Your task to perform on an android device: clear all cookies in the chrome app Image 0: 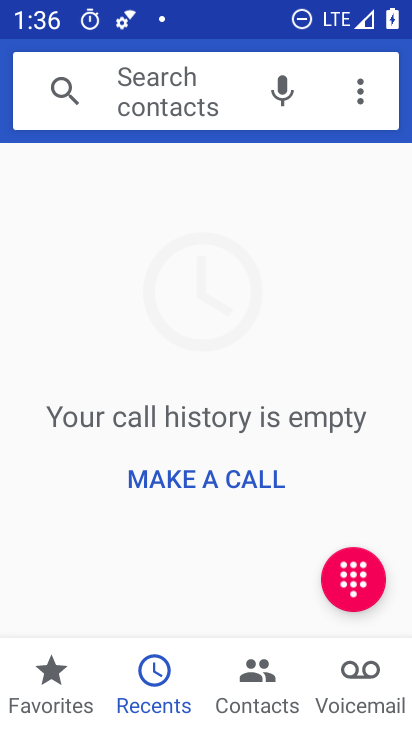
Step 0: press home button
Your task to perform on an android device: clear all cookies in the chrome app Image 1: 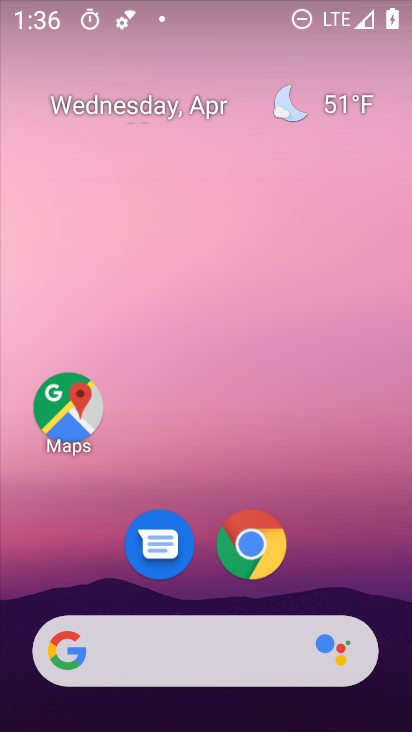
Step 1: drag from (335, 553) to (322, 87)
Your task to perform on an android device: clear all cookies in the chrome app Image 2: 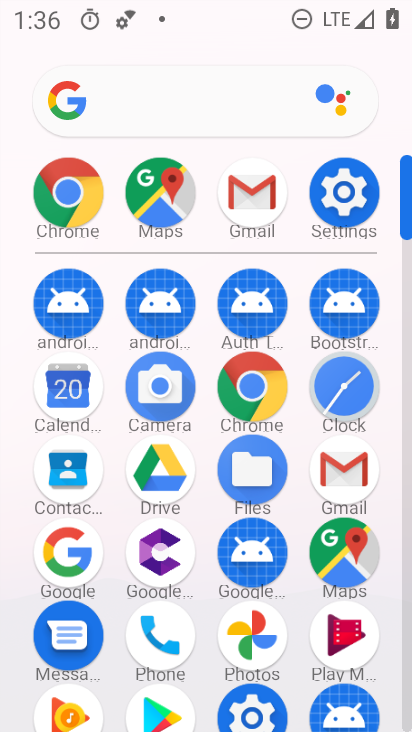
Step 2: click (263, 386)
Your task to perform on an android device: clear all cookies in the chrome app Image 3: 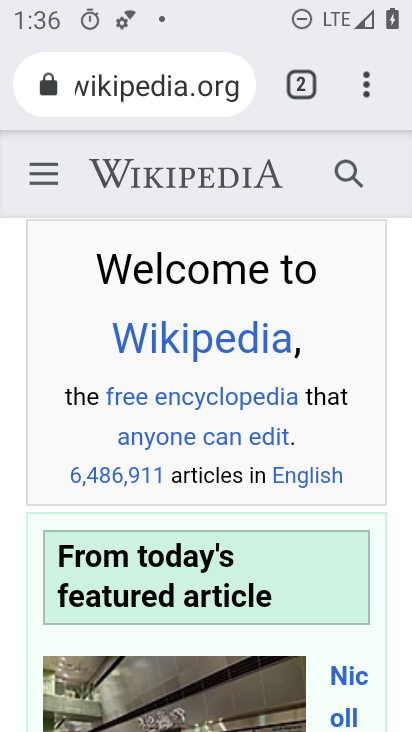
Step 3: click (367, 87)
Your task to perform on an android device: clear all cookies in the chrome app Image 4: 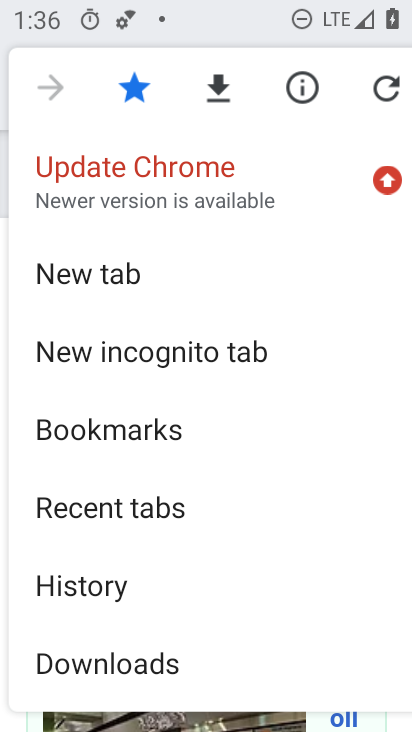
Step 4: drag from (309, 549) to (307, 358)
Your task to perform on an android device: clear all cookies in the chrome app Image 5: 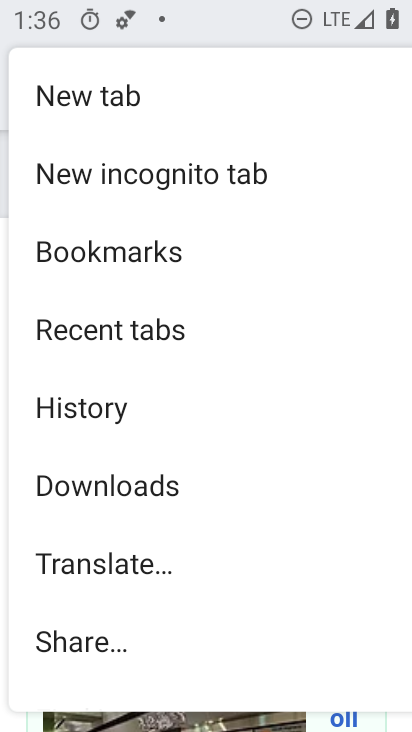
Step 5: drag from (310, 583) to (327, 395)
Your task to perform on an android device: clear all cookies in the chrome app Image 6: 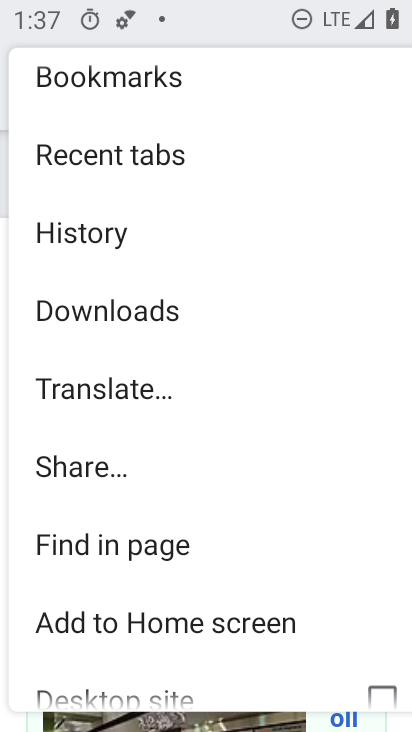
Step 6: drag from (321, 641) to (329, 362)
Your task to perform on an android device: clear all cookies in the chrome app Image 7: 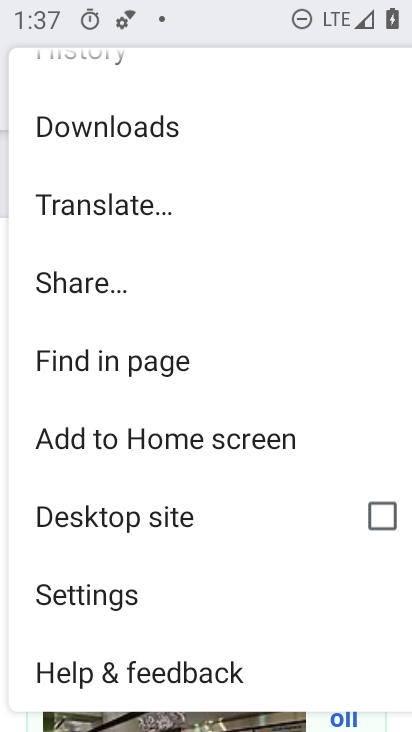
Step 7: drag from (313, 588) to (316, 326)
Your task to perform on an android device: clear all cookies in the chrome app Image 8: 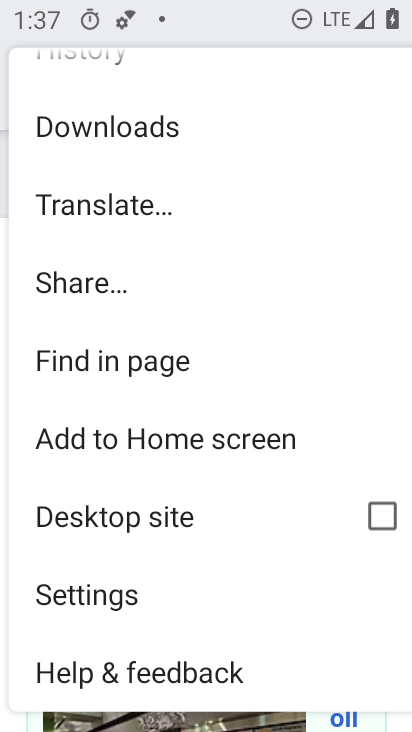
Step 8: click (125, 595)
Your task to perform on an android device: clear all cookies in the chrome app Image 9: 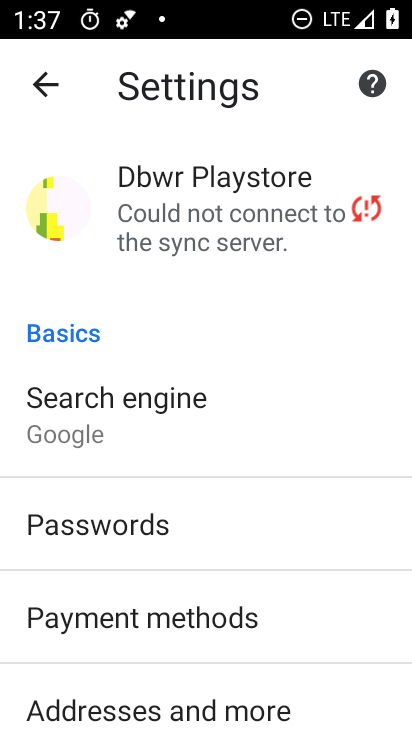
Step 9: drag from (334, 636) to (336, 432)
Your task to perform on an android device: clear all cookies in the chrome app Image 10: 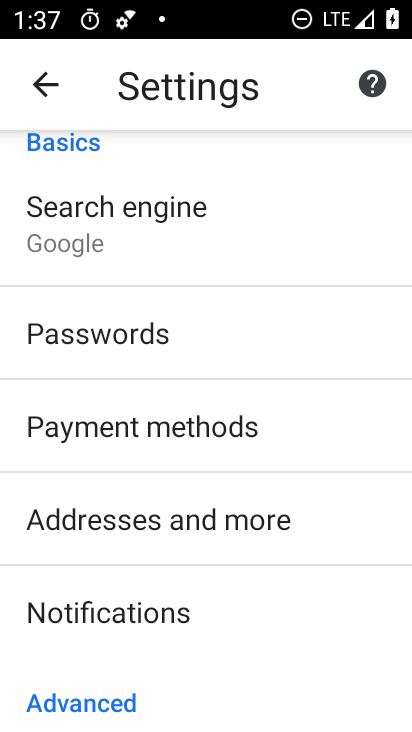
Step 10: drag from (313, 637) to (325, 456)
Your task to perform on an android device: clear all cookies in the chrome app Image 11: 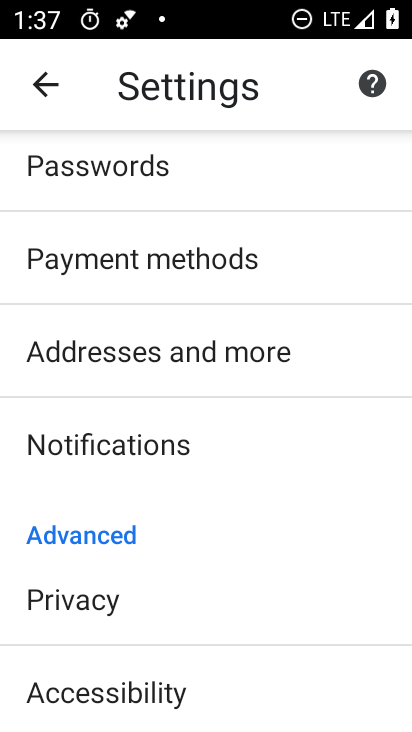
Step 11: drag from (321, 662) to (322, 447)
Your task to perform on an android device: clear all cookies in the chrome app Image 12: 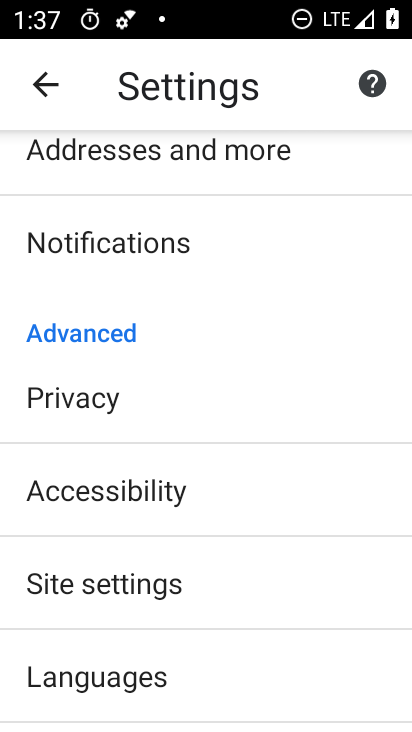
Step 12: drag from (302, 658) to (307, 412)
Your task to perform on an android device: clear all cookies in the chrome app Image 13: 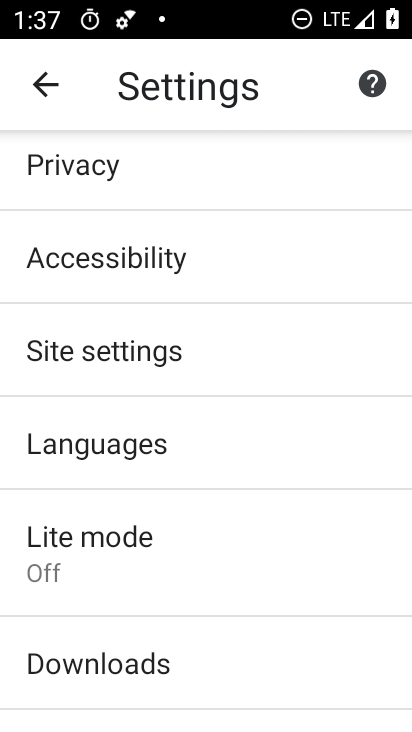
Step 13: drag from (276, 643) to (309, 410)
Your task to perform on an android device: clear all cookies in the chrome app Image 14: 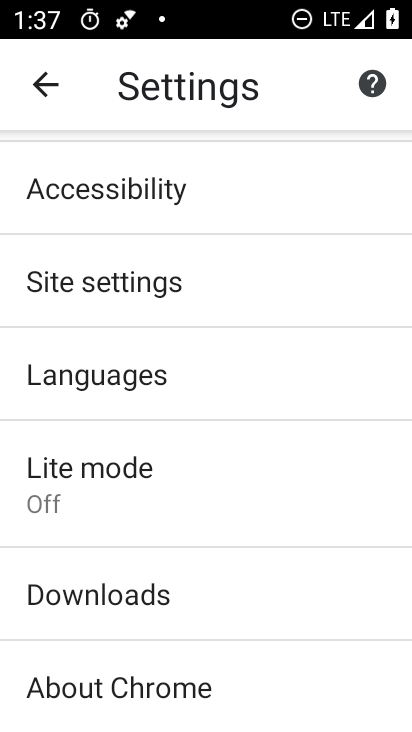
Step 14: drag from (308, 339) to (307, 508)
Your task to perform on an android device: clear all cookies in the chrome app Image 15: 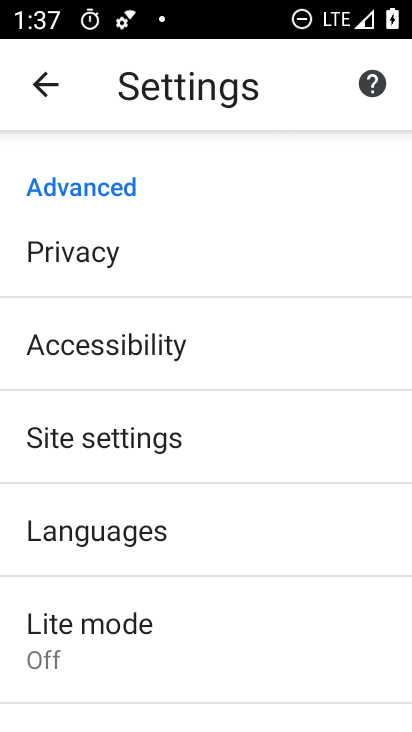
Step 15: drag from (317, 324) to (305, 503)
Your task to perform on an android device: clear all cookies in the chrome app Image 16: 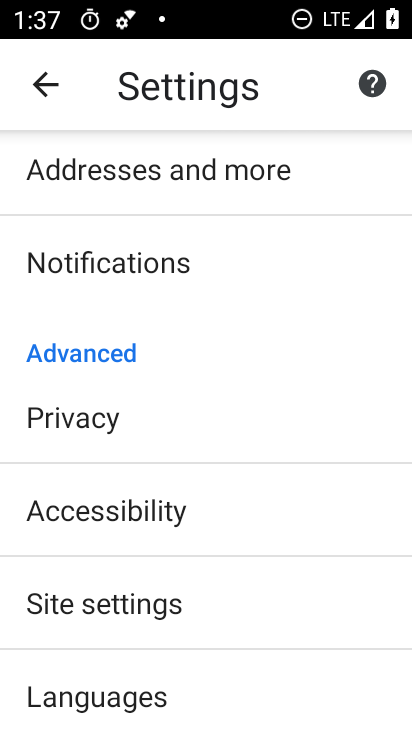
Step 16: drag from (284, 311) to (284, 437)
Your task to perform on an android device: clear all cookies in the chrome app Image 17: 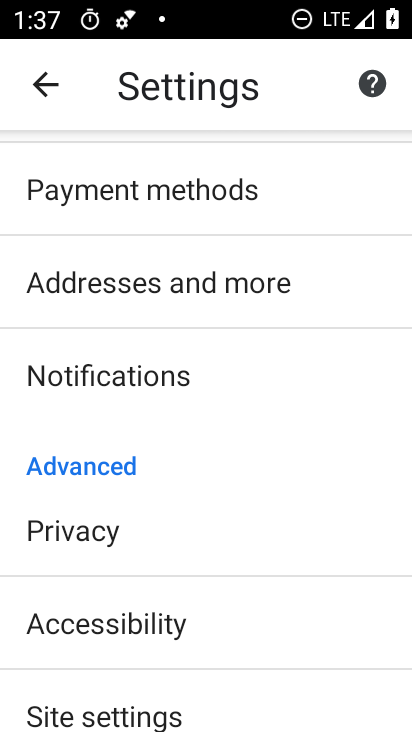
Step 17: click (60, 520)
Your task to perform on an android device: clear all cookies in the chrome app Image 18: 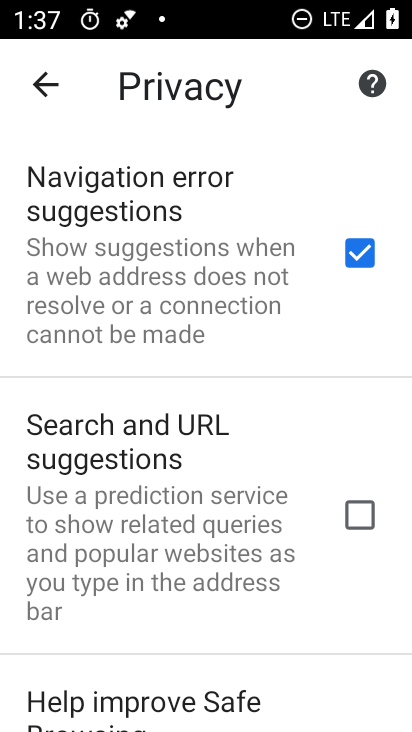
Step 18: drag from (300, 606) to (308, 421)
Your task to perform on an android device: clear all cookies in the chrome app Image 19: 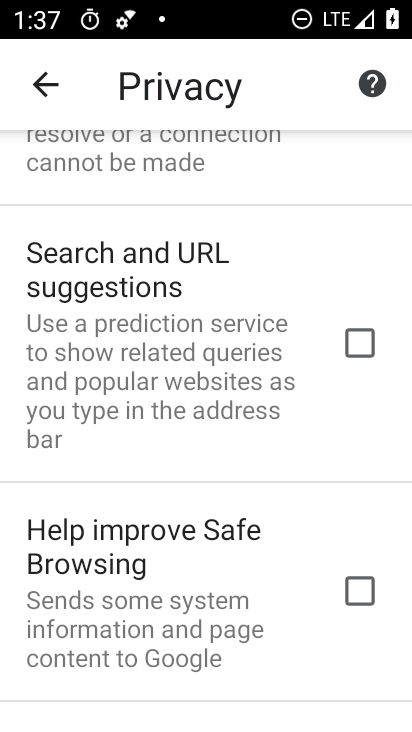
Step 19: drag from (300, 608) to (298, 426)
Your task to perform on an android device: clear all cookies in the chrome app Image 20: 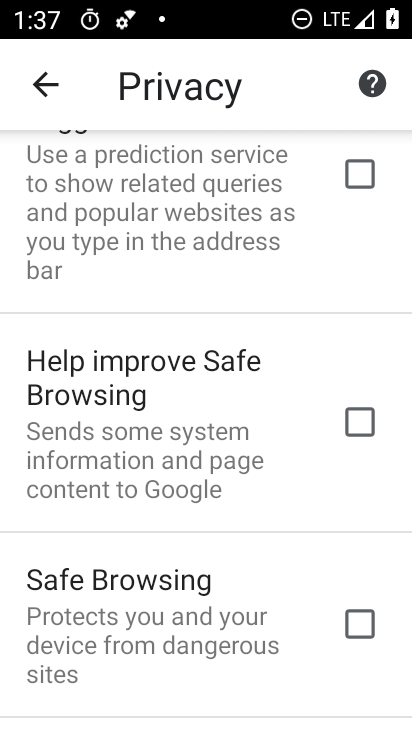
Step 20: drag from (300, 646) to (294, 489)
Your task to perform on an android device: clear all cookies in the chrome app Image 21: 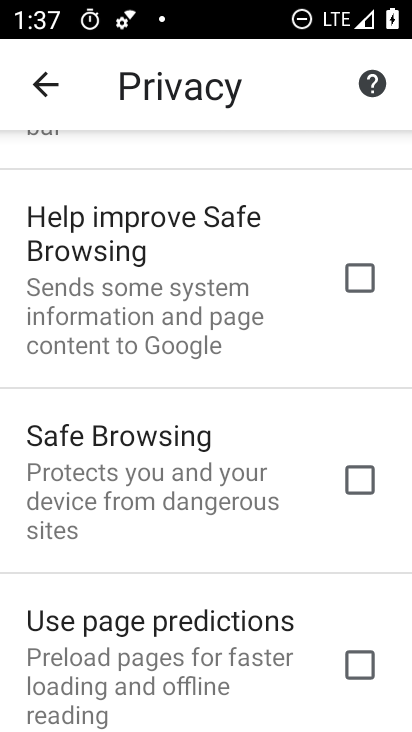
Step 21: drag from (304, 654) to (308, 473)
Your task to perform on an android device: clear all cookies in the chrome app Image 22: 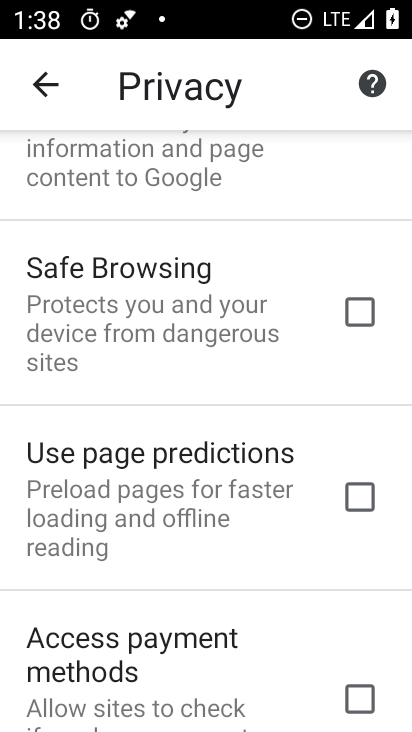
Step 22: drag from (279, 669) to (282, 488)
Your task to perform on an android device: clear all cookies in the chrome app Image 23: 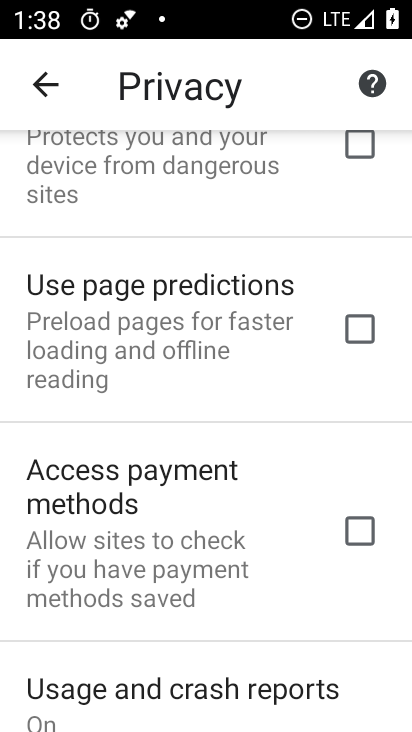
Step 23: drag from (281, 635) to (273, 439)
Your task to perform on an android device: clear all cookies in the chrome app Image 24: 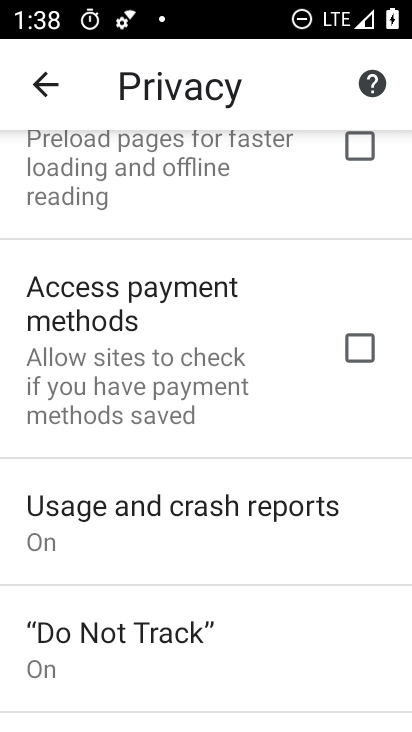
Step 24: drag from (273, 654) to (276, 380)
Your task to perform on an android device: clear all cookies in the chrome app Image 25: 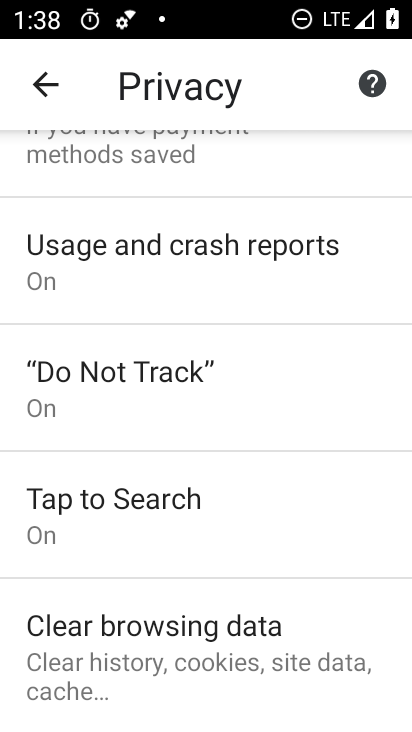
Step 25: click (230, 649)
Your task to perform on an android device: clear all cookies in the chrome app Image 26: 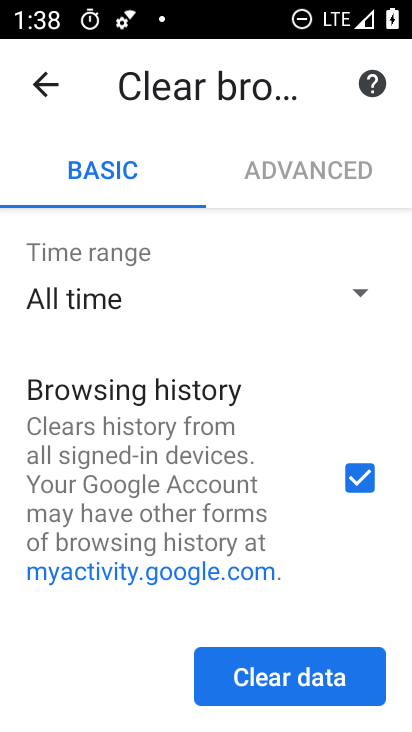
Step 26: click (312, 692)
Your task to perform on an android device: clear all cookies in the chrome app Image 27: 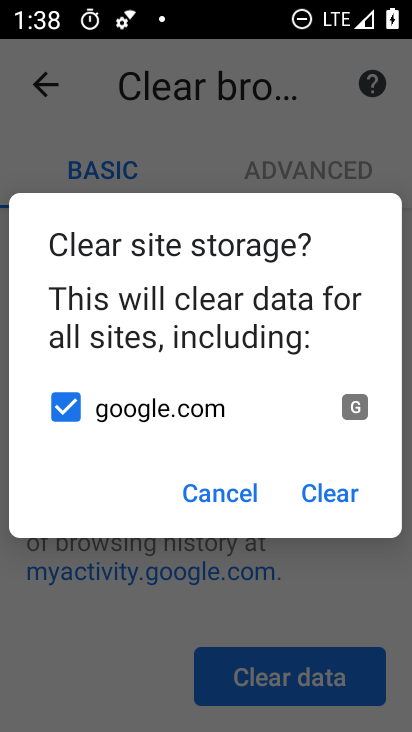
Step 27: click (340, 493)
Your task to perform on an android device: clear all cookies in the chrome app Image 28: 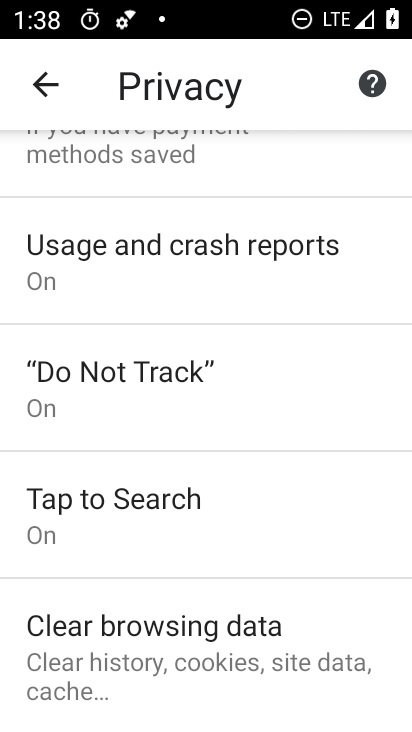
Step 28: task complete